Your task to perform on an android device: Is it going to rain tomorrow? Image 0: 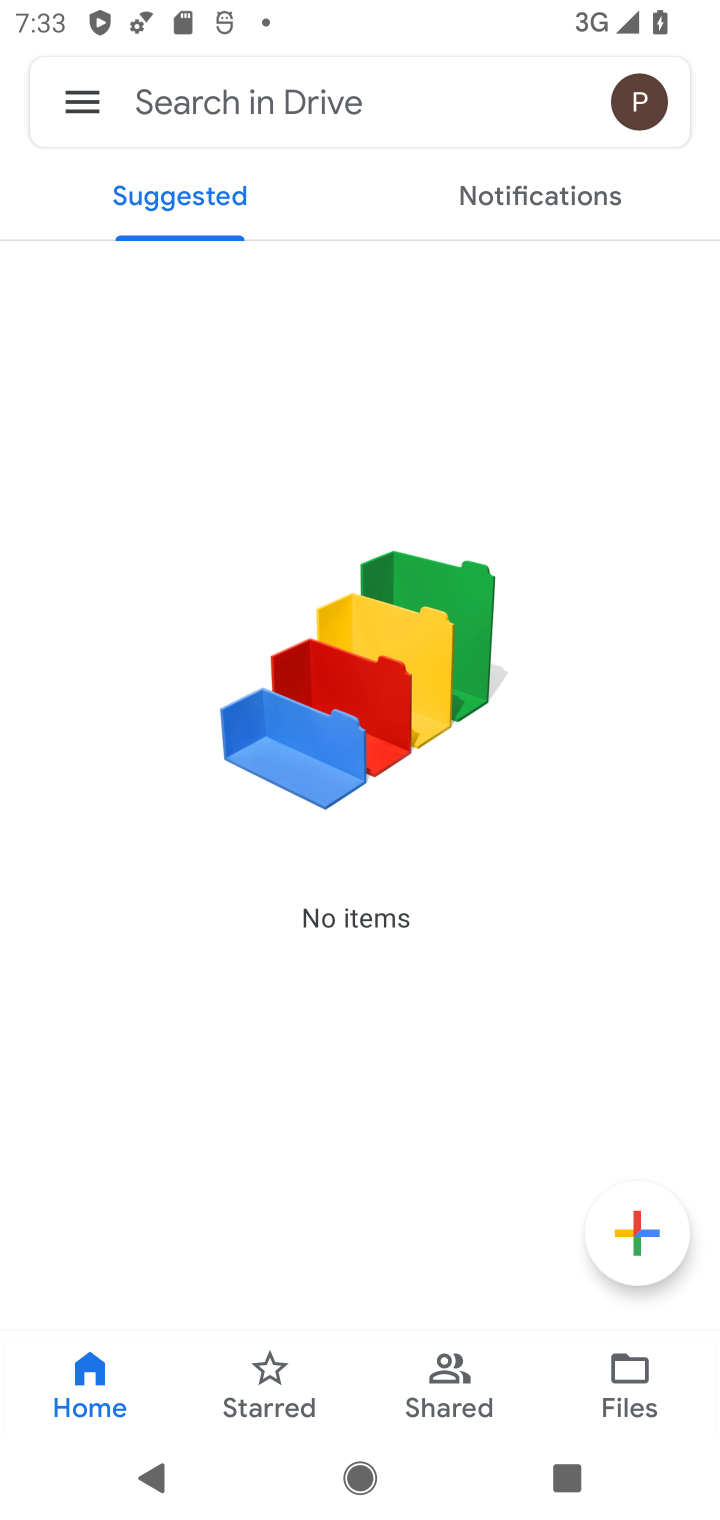
Step 0: press home button
Your task to perform on an android device: Is it going to rain tomorrow? Image 1: 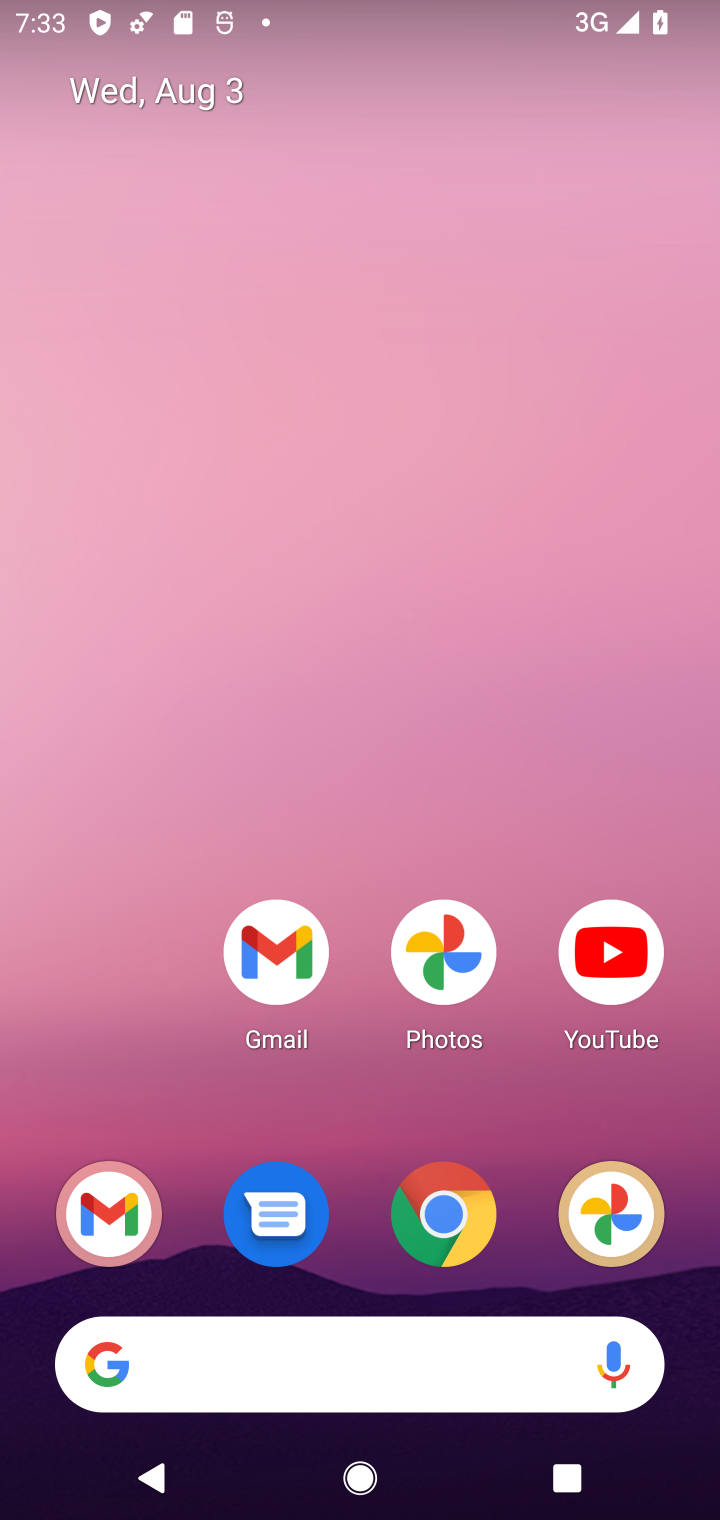
Step 1: drag from (128, 996) to (439, 50)
Your task to perform on an android device: Is it going to rain tomorrow? Image 2: 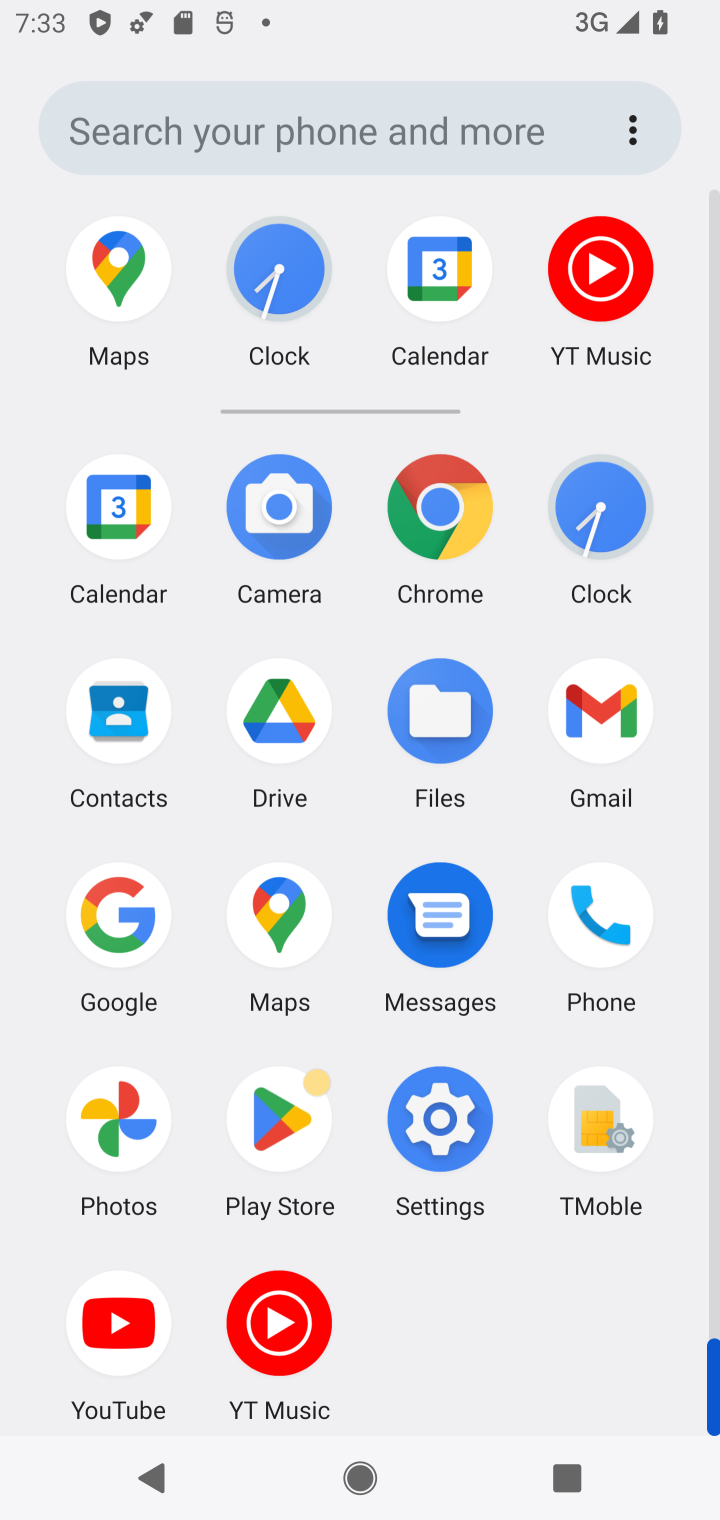
Step 2: click (141, 906)
Your task to perform on an android device: Is it going to rain tomorrow? Image 3: 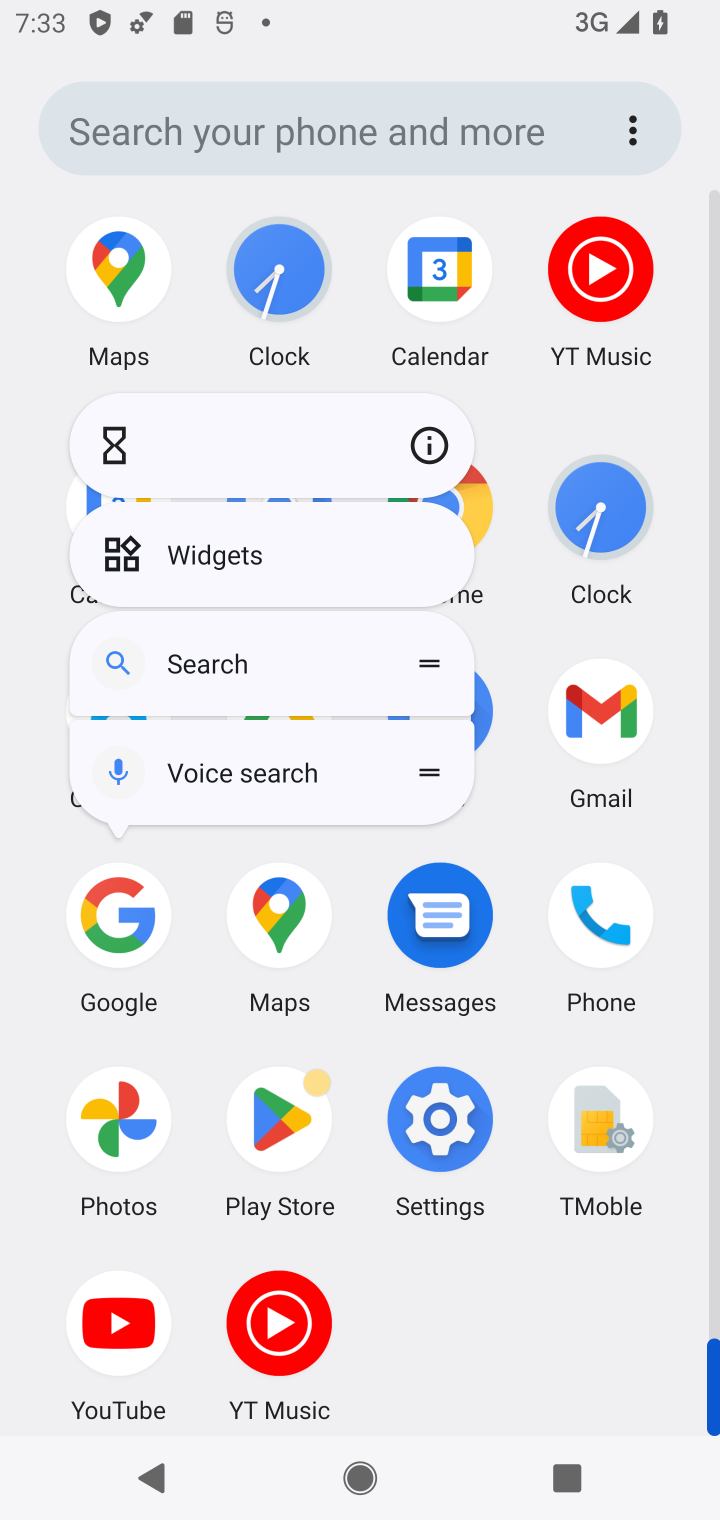
Step 3: click (139, 904)
Your task to perform on an android device: Is it going to rain tomorrow? Image 4: 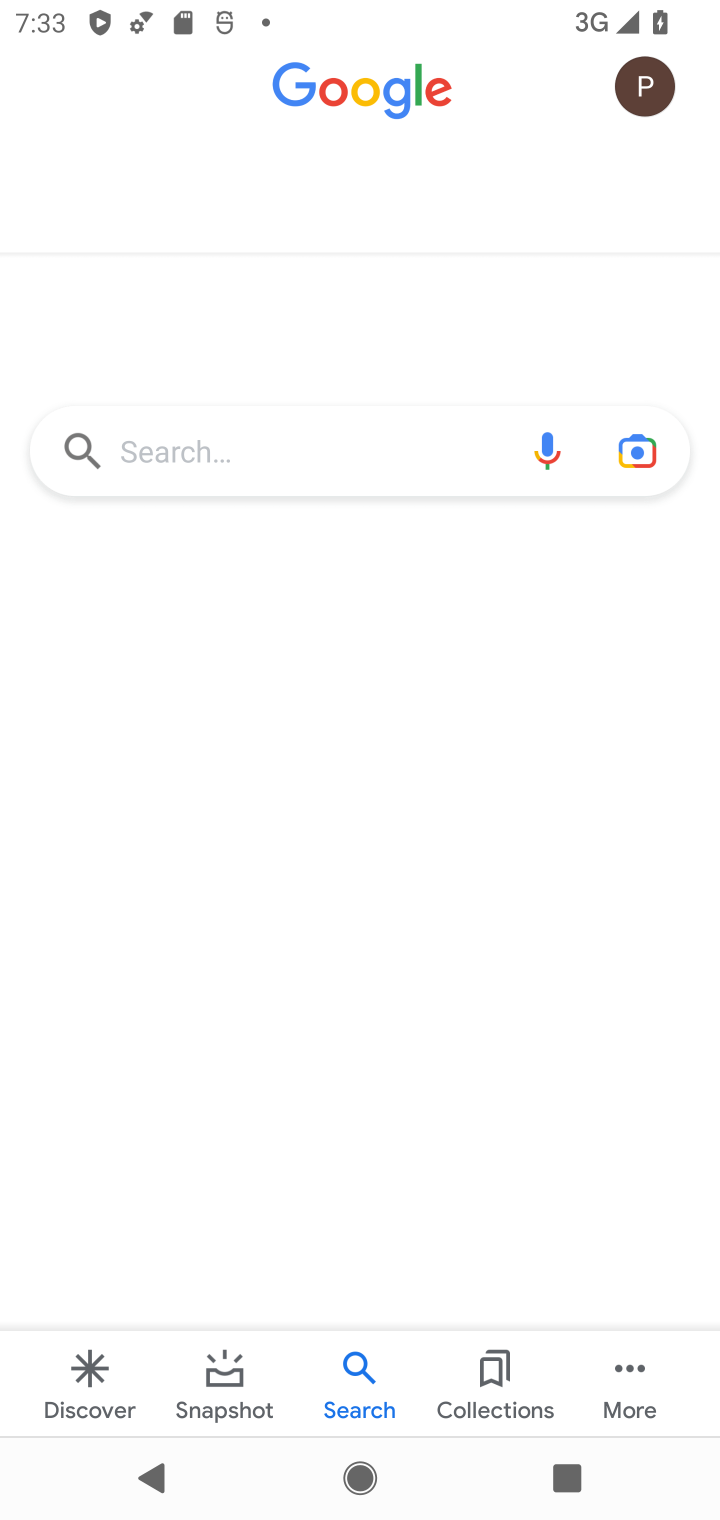
Step 4: click (352, 453)
Your task to perform on an android device: Is it going to rain tomorrow? Image 5: 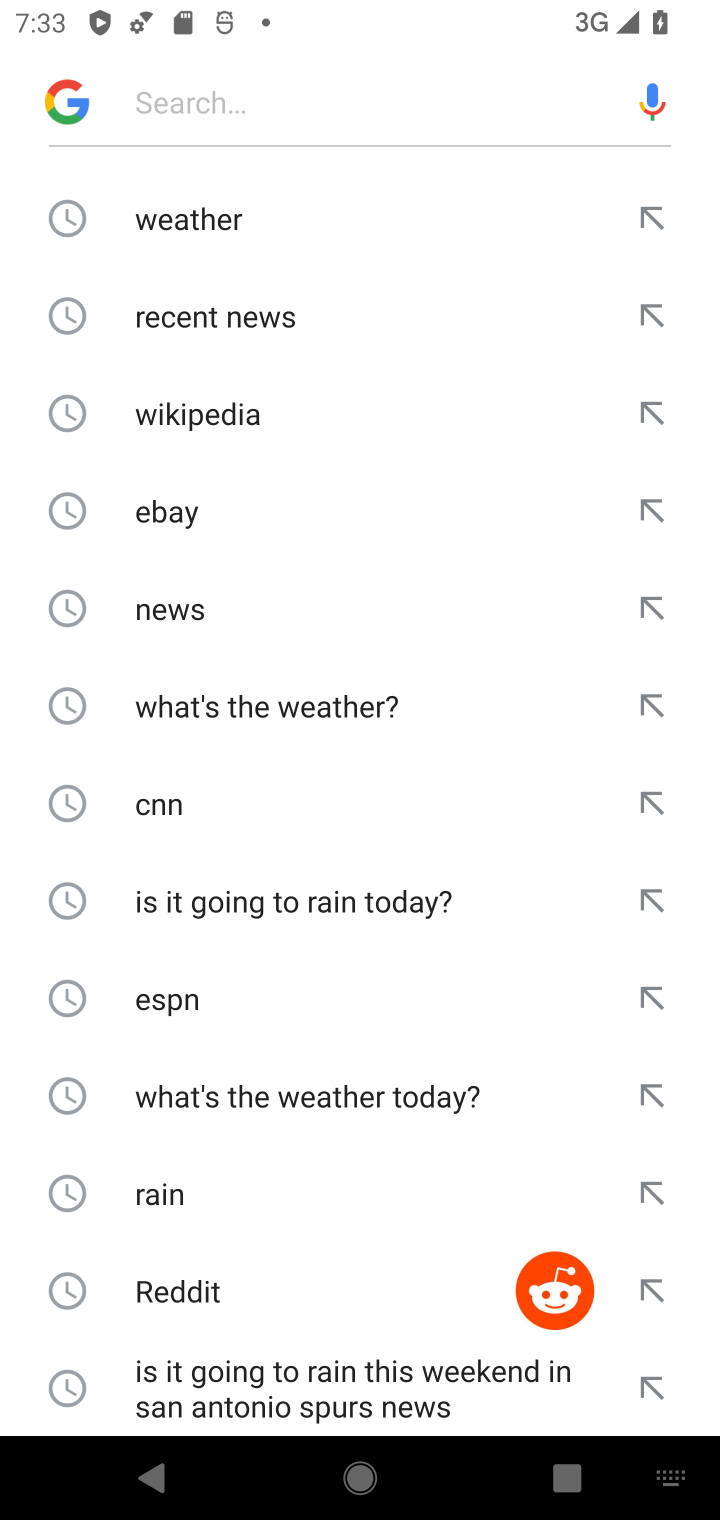
Step 5: click (248, 226)
Your task to perform on an android device: Is it going to rain tomorrow? Image 6: 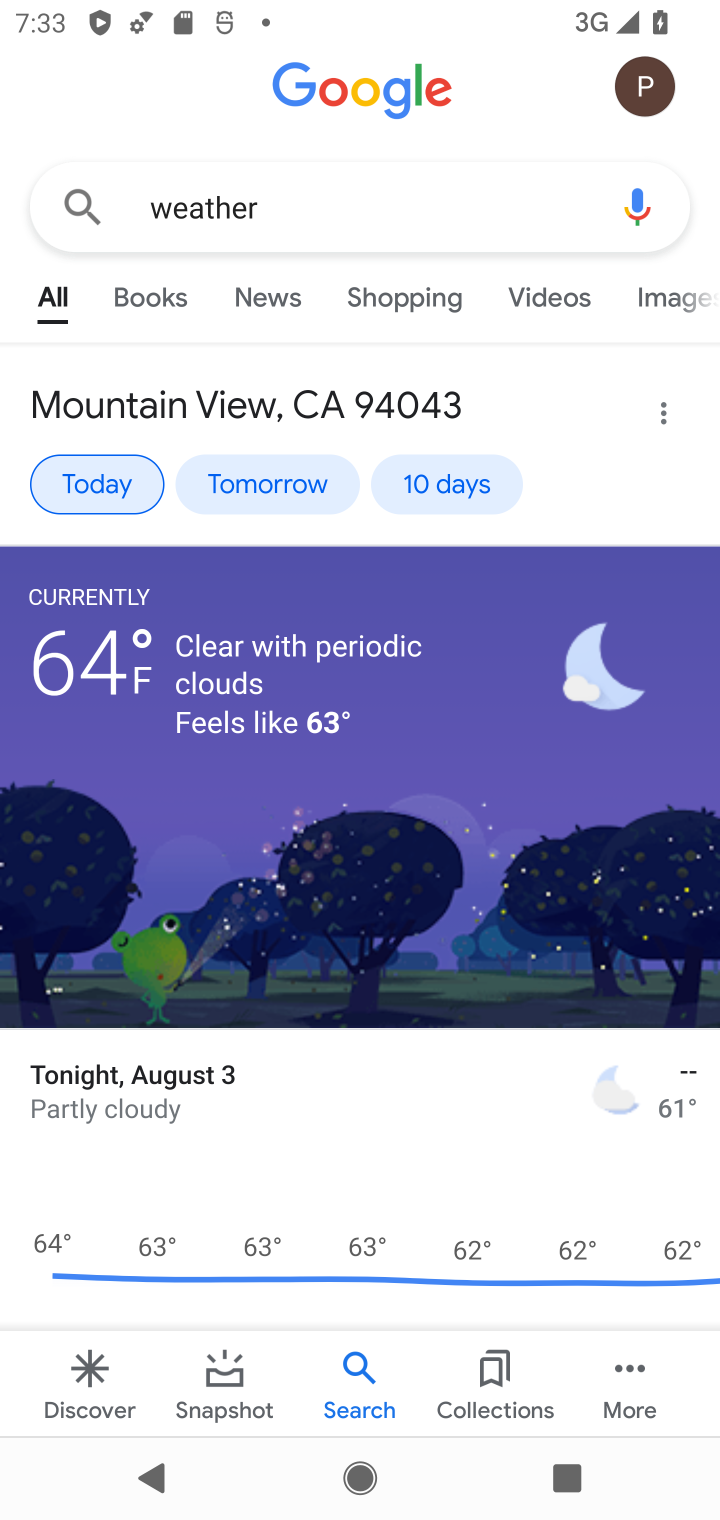
Step 6: click (209, 484)
Your task to perform on an android device: Is it going to rain tomorrow? Image 7: 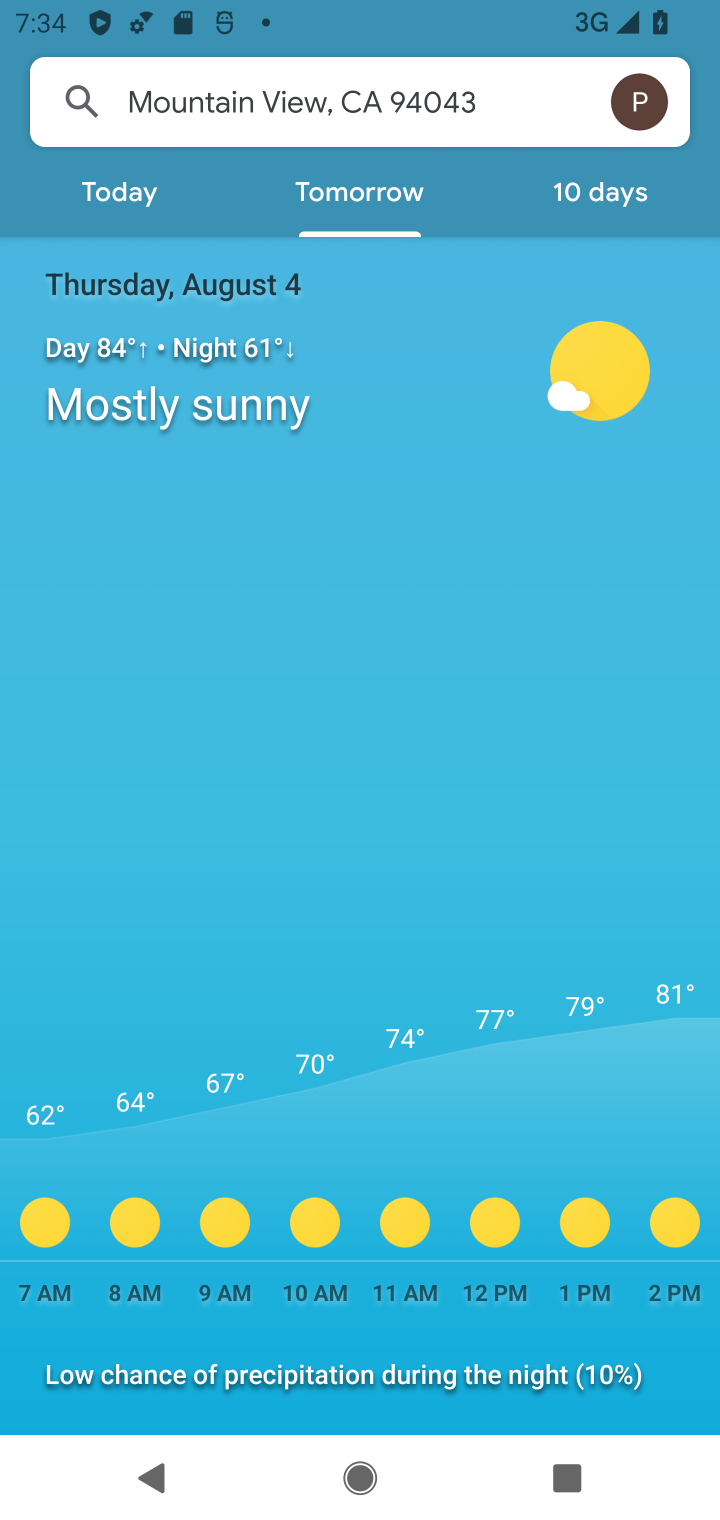
Step 7: task complete